Your task to perform on an android device: turn on javascript in the chrome app Image 0: 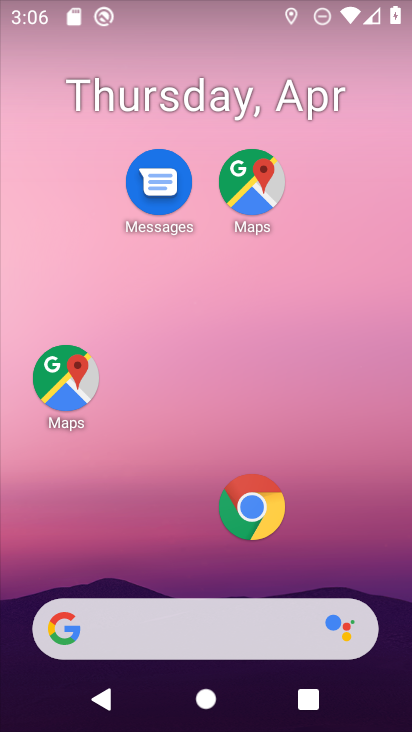
Step 0: drag from (168, 557) to (271, 7)
Your task to perform on an android device: turn on javascript in the chrome app Image 1: 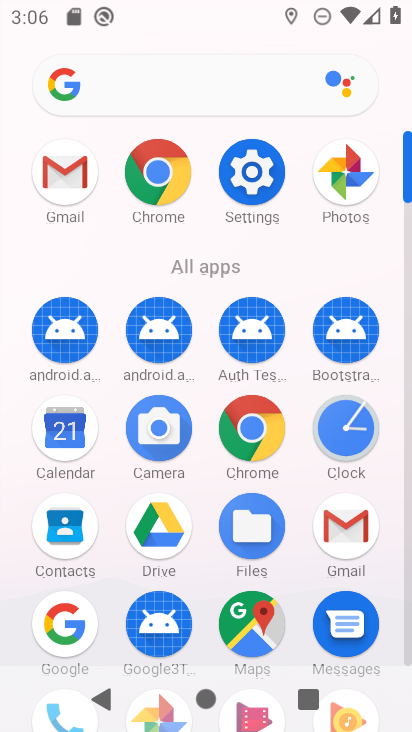
Step 1: click (252, 213)
Your task to perform on an android device: turn on javascript in the chrome app Image 2: 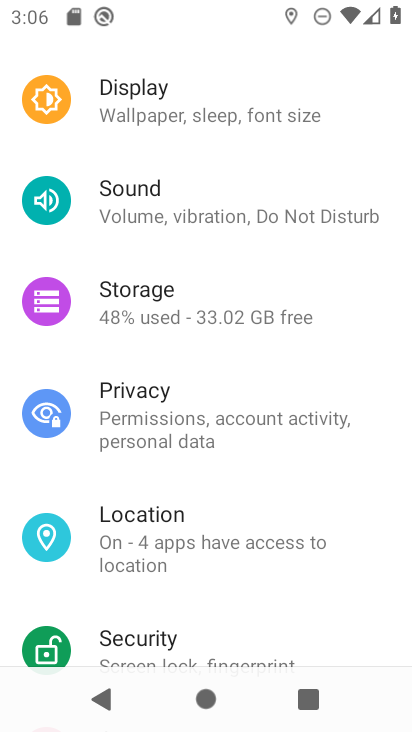
Step 2: press home button
Your task to perform on an android device: turn on javascript in the chrome app Image 3: 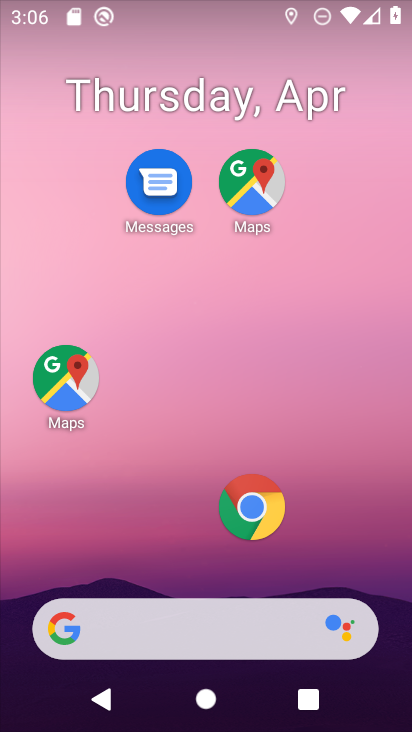
Step 3: click (254, 506)
Your task to perform on an android device: turn on javascript in the chrome app Image 4: 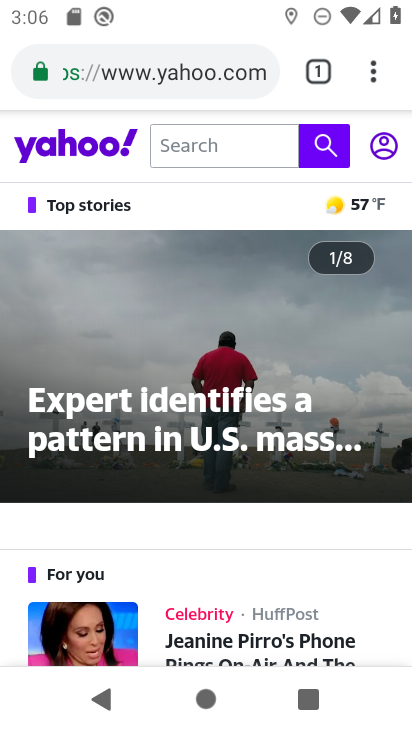
Step 4: click (364, 72)
Your task to perform on an android device: turn on javascript in the chrome app Image 5: 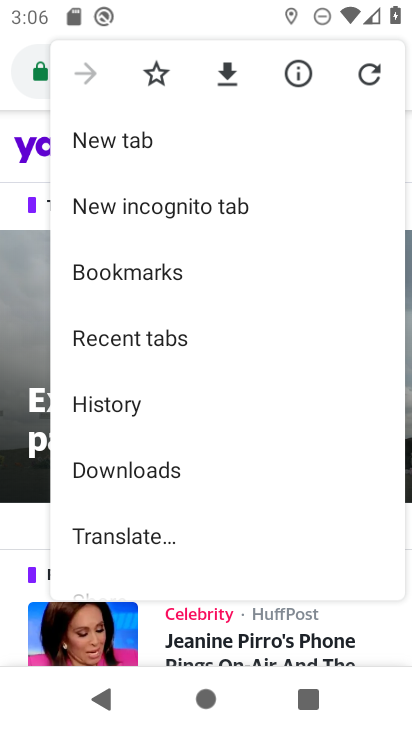
Step 5: drag from (148, 493) to (245, 146)
Your task to perform on an android device: turn on javascript in the chrome app Image 6: 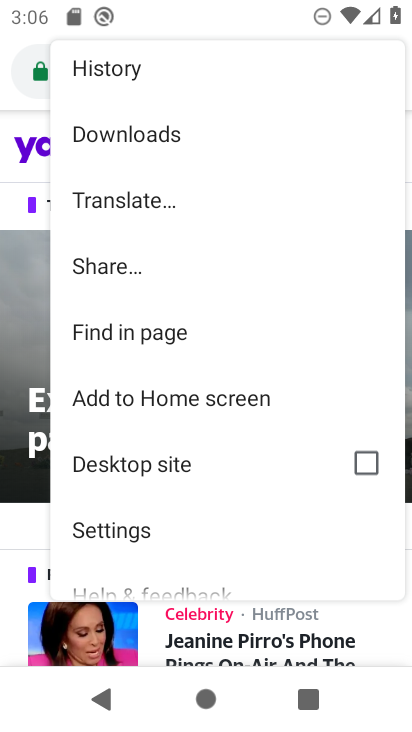
Step 6: click (135, 524)
Your task to perform on an android device: turn on javascript in the chrome app Image 7: 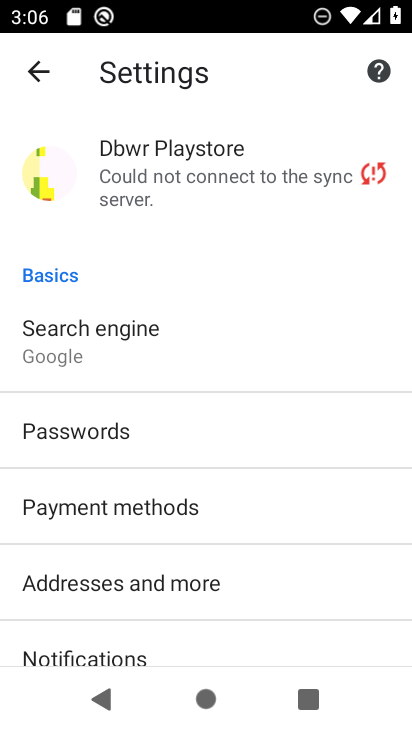
Step 7: drag from (116, 546) to (222, 244)
Your task to perform on an android device: turn on javascript in the chrome app Image 8: 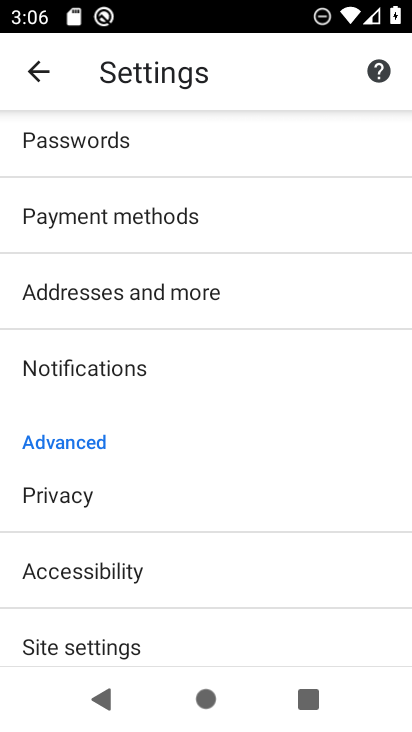
Step 8: click (85, 639)
Your task to perform on an android device: turn on javascript in the chrome app Image 9: 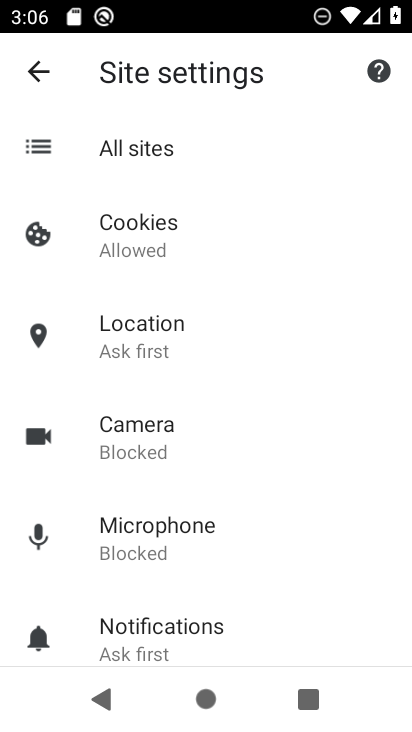
Step 9: drag from (126, 616) to (163, 420)
Your task to perform on an android device: turn on javascript in the chrome app Image 10: 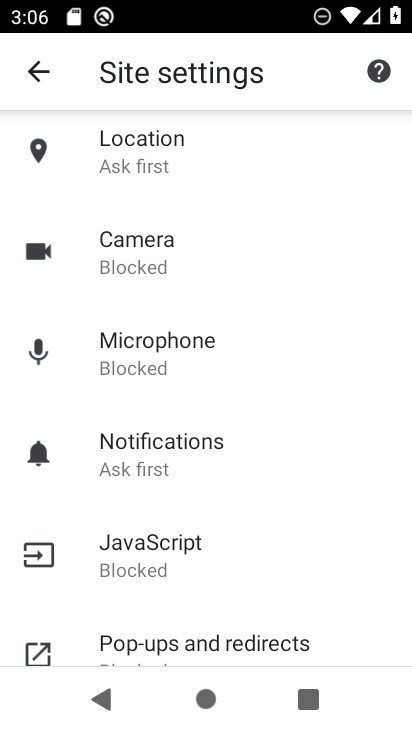
Step 10: click (154, 564)
Your task to perform on an android device: turn on javascript in the chrome app Image 11: 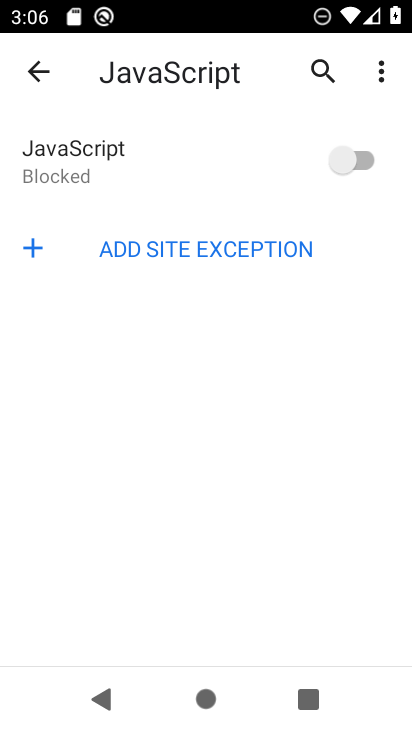
Step 11: click (343, 156)
Your task to perform on an android device: turn on javascript in the chrome app Image 12: 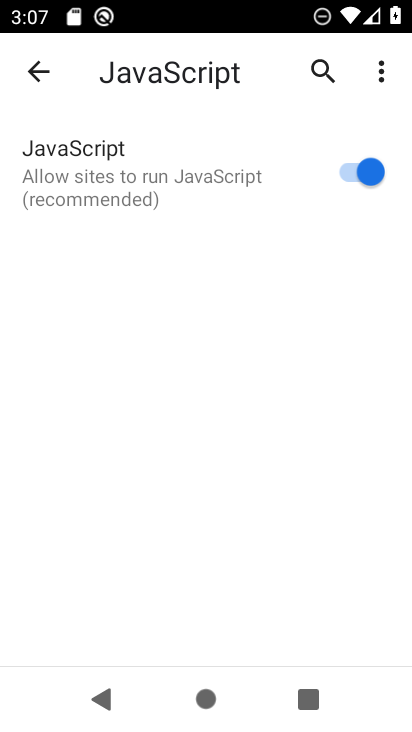
Step 12: task complete